Your task to perform on an android device: visit the assistant section in the google photos Image 0: 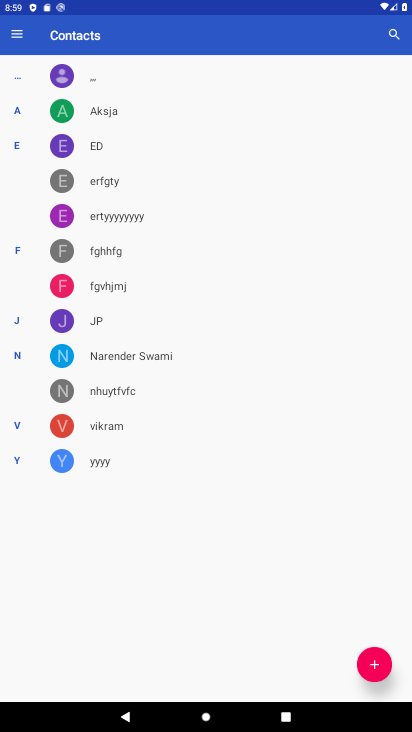
Step 0: press home button
Your task to perform on an android device: visit the assistant section in the google photos Image 1: 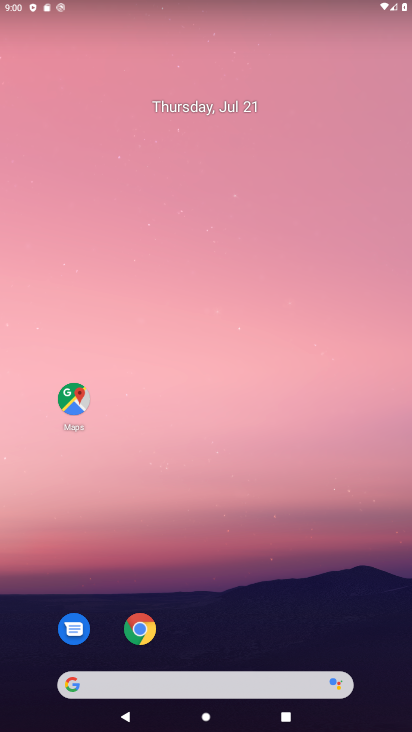
Step 1: drag from (233, 619) to (233, 364)
Your task to perform on an android device: visit the assistant section in the google photos Image 2: 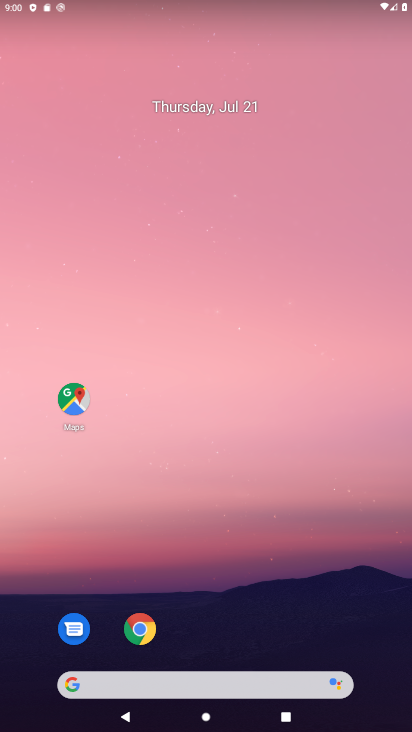
Step 2: drag from (291, 511) to (279, 0)
Your task to perform on an android device: visit the assistant section in the google photos Image 3: 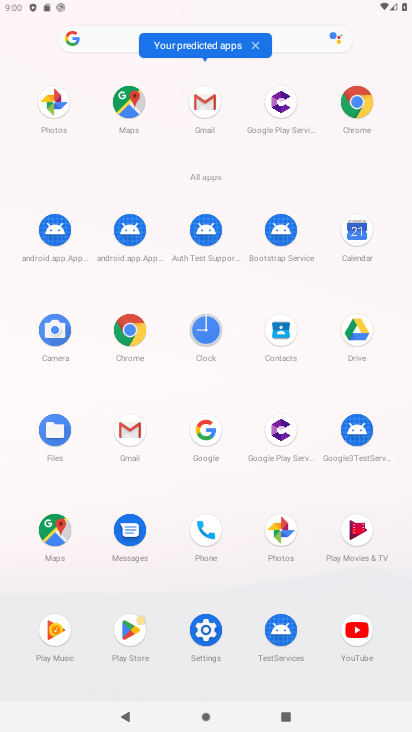
Step 3: click (289, 535)
Your task to perform on an android device: visit the assistant section in the google photos Image 4: 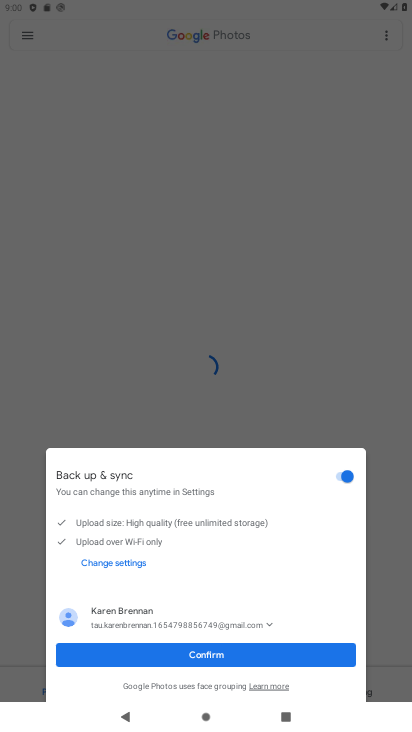
Step 4: click (308, 658)
Your task to perform on an android device: visit the assistant section in the google photos Image 5: 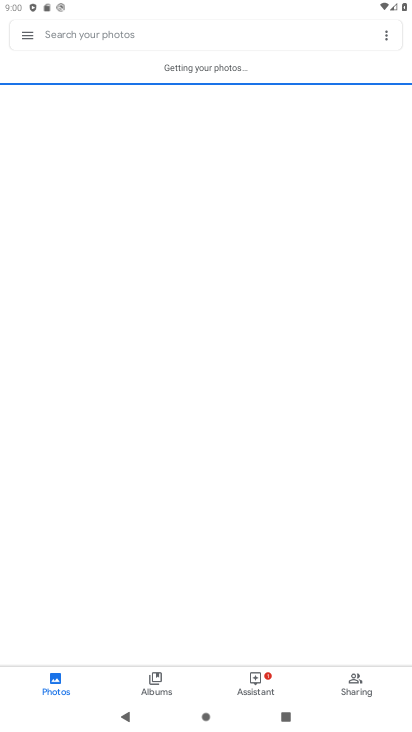
Step 5: click (262, 677)
Your task to perform on an android device: visit the assistant section in the google photos Image 6: 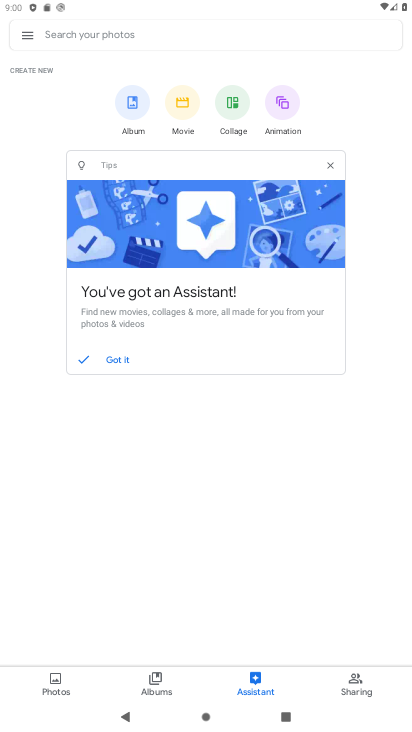
Step 6: task complete